Your task to perform on an android device: stop showing notifications on the lock screen Image 0: 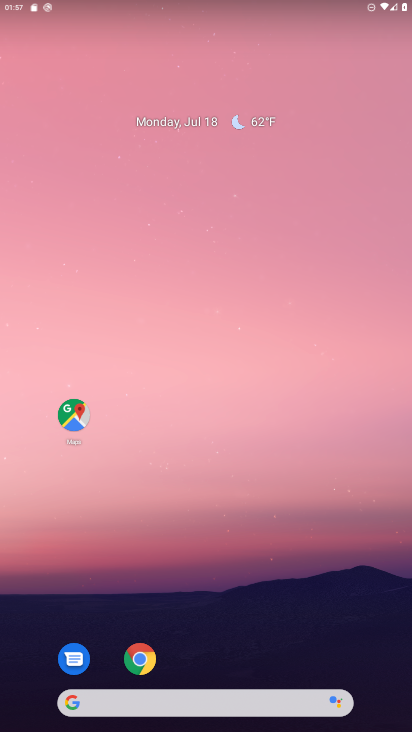
Step 0: drag from (310, 609) to (263, 13)
Your task to perform on an android device: stop showing notifications on the lock screen Image 1: 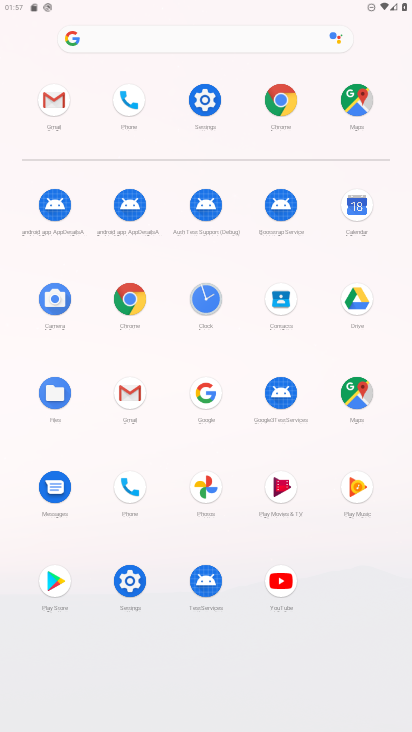
Step 1: click (208, 99)
Your task to perform on an android device: stop showing notifications on the lock screen Image 2: 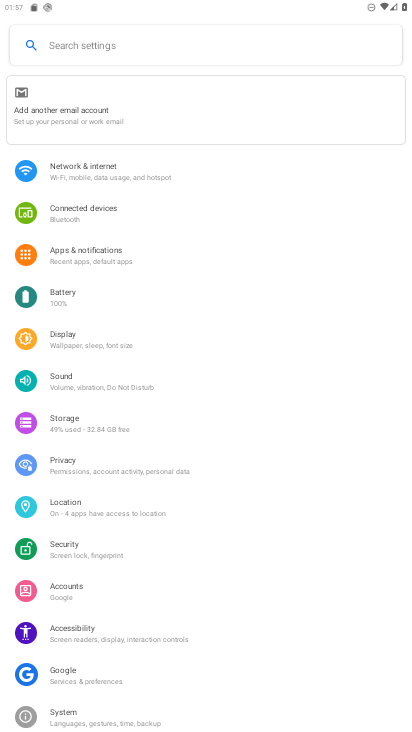
Step 2: click (103, 257)
Your task to perform on an android device: stop showing notifications on the lock screen Image 3: 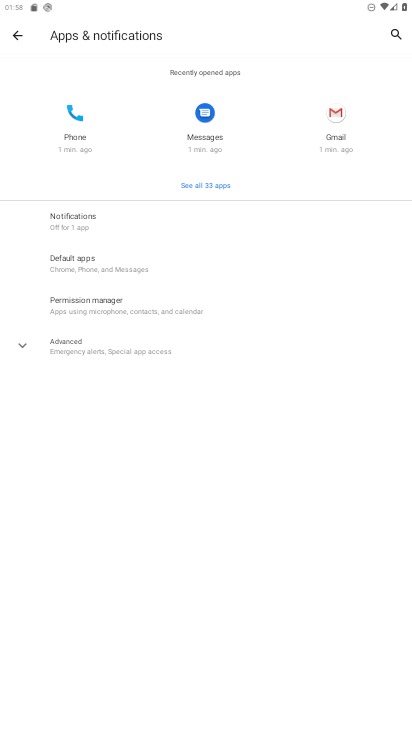
Step 3: click (86, 223)
Your task to perform on an android device: stop showing notifications on the lock screen Image 4: 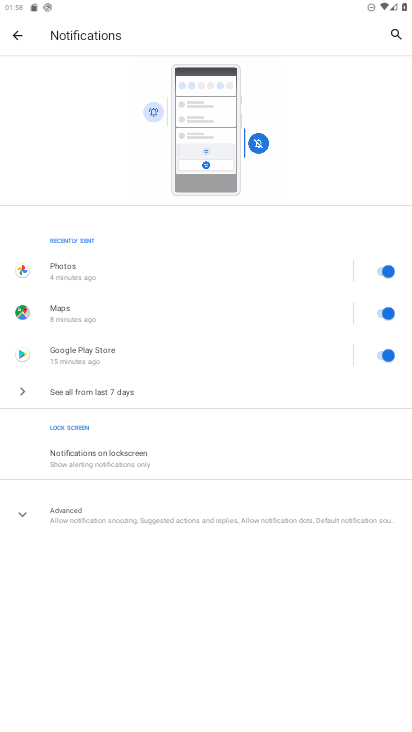
Step 4: click (148, 467)
Your task to perform on an android device: stop showing notifications on the lock screen Image 5: 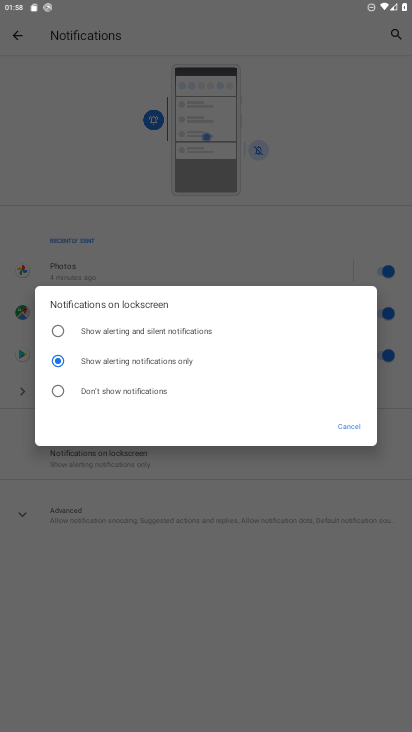
Step 5: click (145, 393)
Your task to perform on an android device: stop showing notifications on the lock screen Image 6: 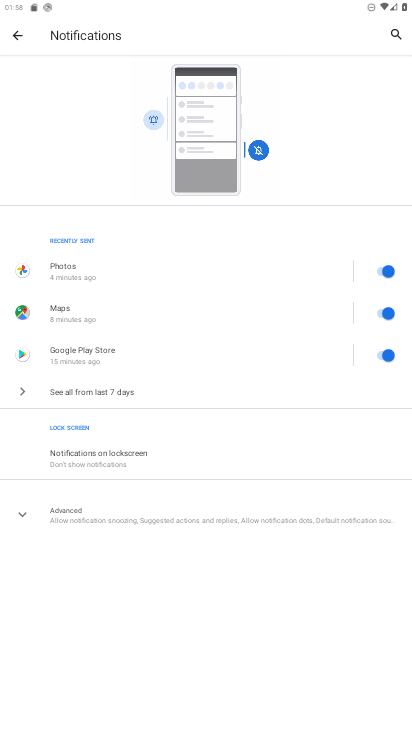
Step 6: task complete